Your task to perform on an android device: Go to ESPN.com Image 0: 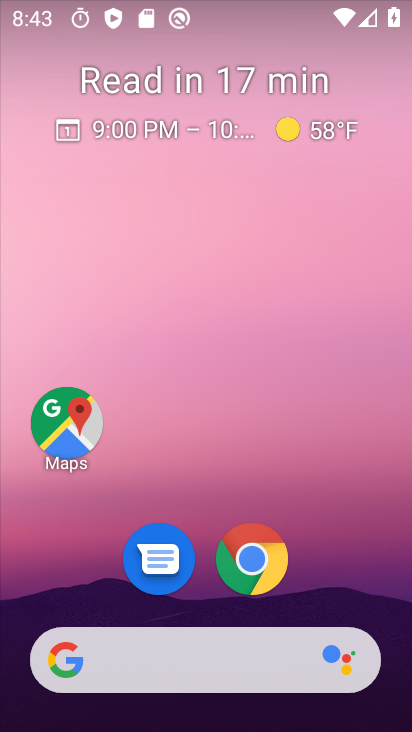
Step 0: click (245, 570)
Your task to perform on an android device: Go to ESPN.com Image 1: 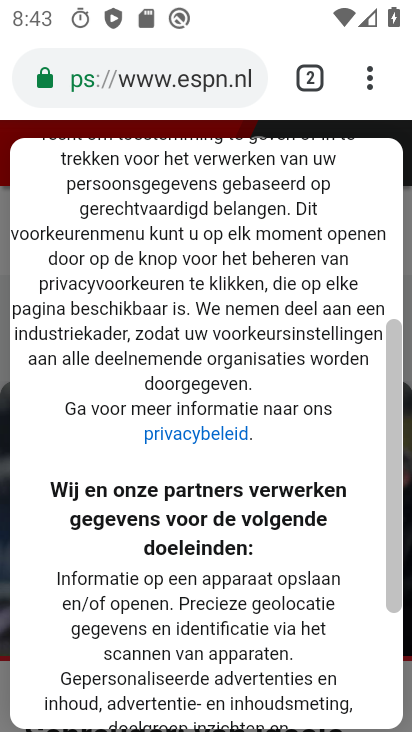
Step 1: click (133, 76)
Your task to perform on an android device: Go to ESPN.com Image 2: 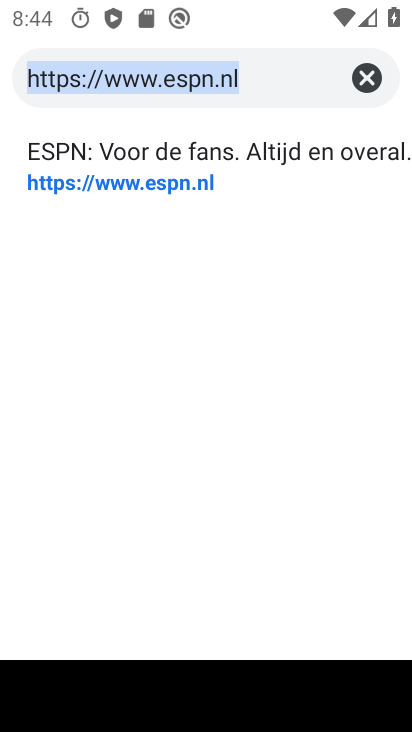
Step 2: type "ESPN.com"
Your task to perform on an android device: Go to ESPN.com Image 3: 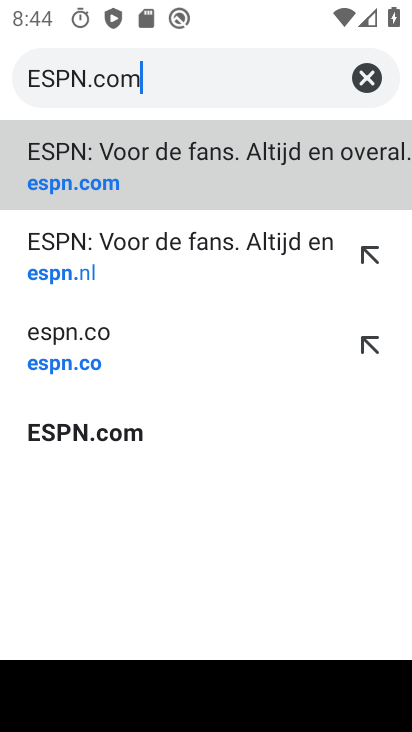
Step 3: type ""
Your task to perform on an android device: Go to ESPN.com Image 4: 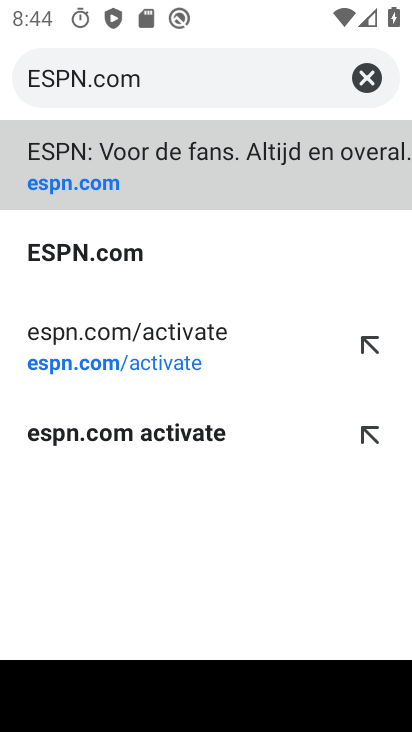
Step 4: click (86, 243)
Your task to perform on an android device: Go to ESPN.com Image 5: 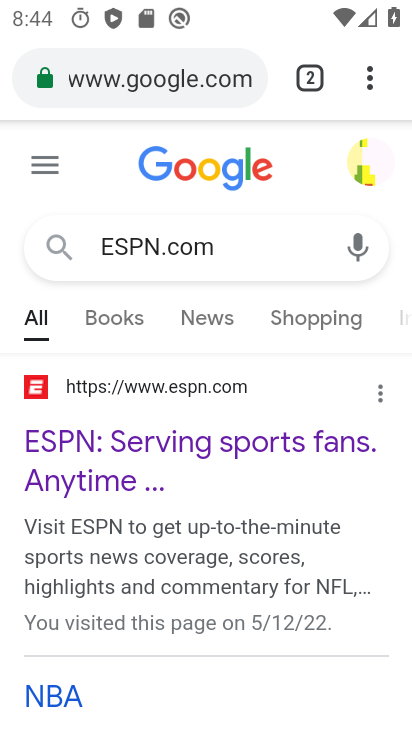
Step 5: click (135, 387)
Your task to perform on an android device: Go to ESPN.com Image 6: 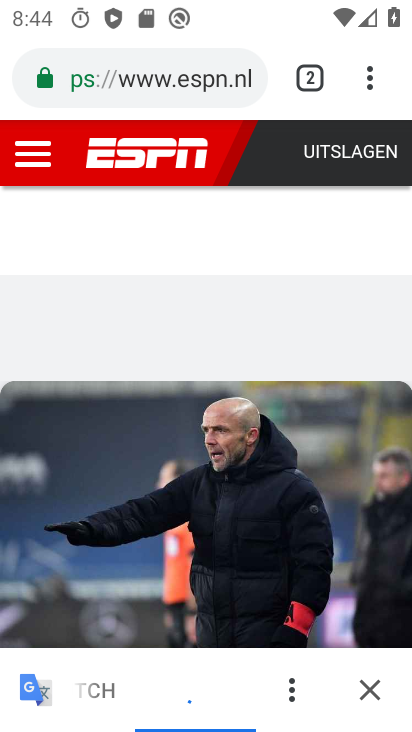
Step 6: task complete